Your task to perform on an android device: Check the news Image 0: 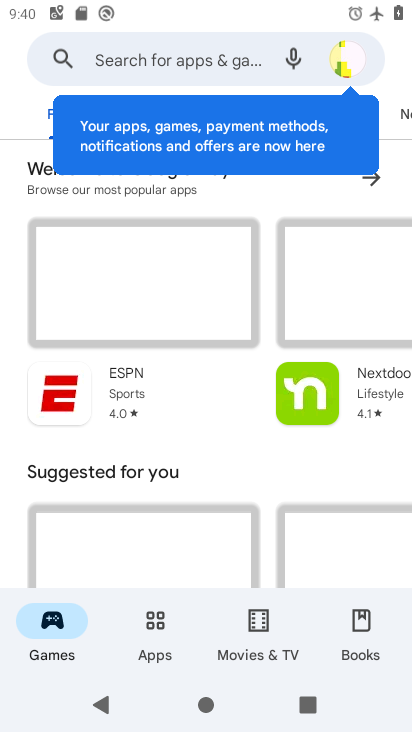
Step 0: press home button
Your task to perform on an android device: Check the news Image 1: 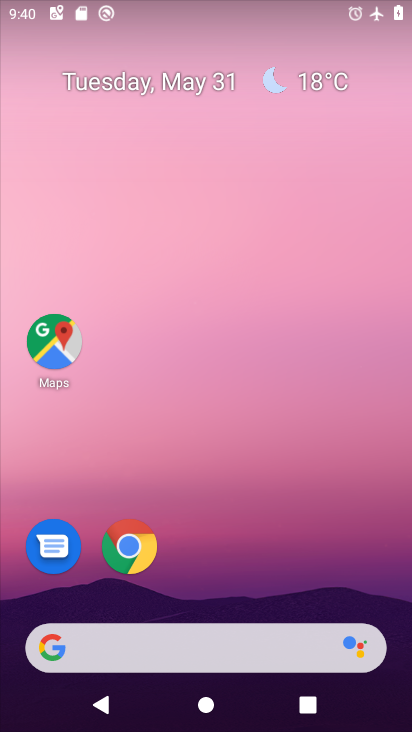
Step 1: click (189, 645)
Your task to perform on an android device: Check the news Image 2: 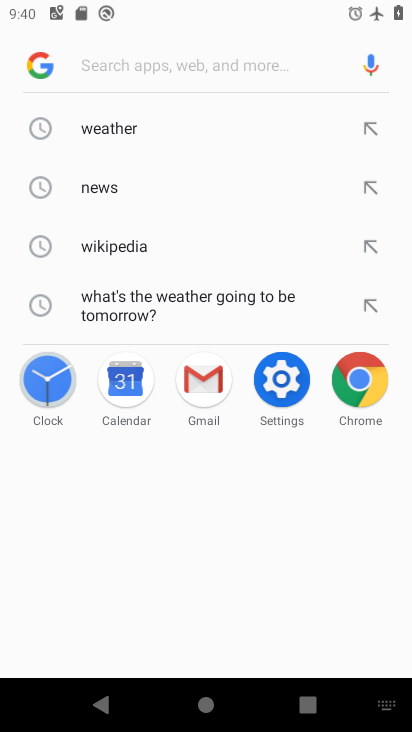
Step 2: click (113, 200)
Your task to perform on an android device: Check the news Image 3: 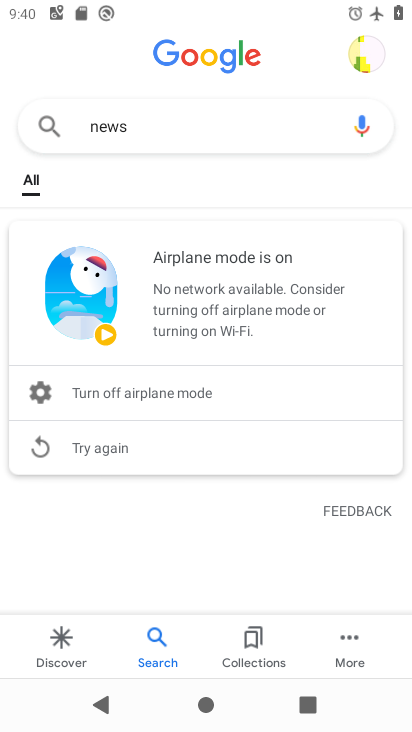
Step 3: task complete